Your task to perform on an android device: Search for sushi restaurants on Maps Image 0: 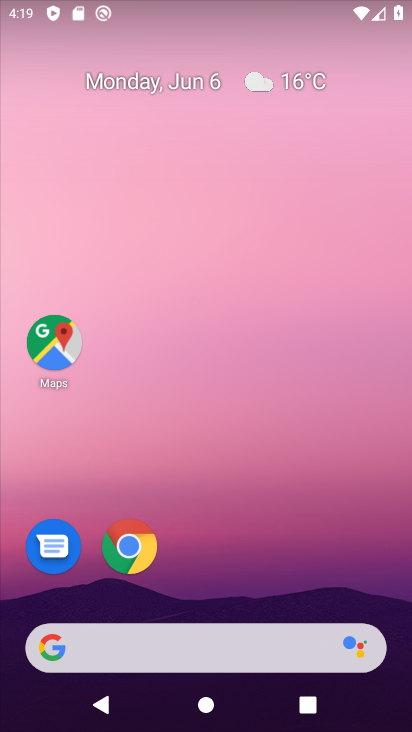
Step 0: drag from (242, 626) to (167, 63)
Your task to perform on an android device: Search for sushi restaurants on Maps Image 1: 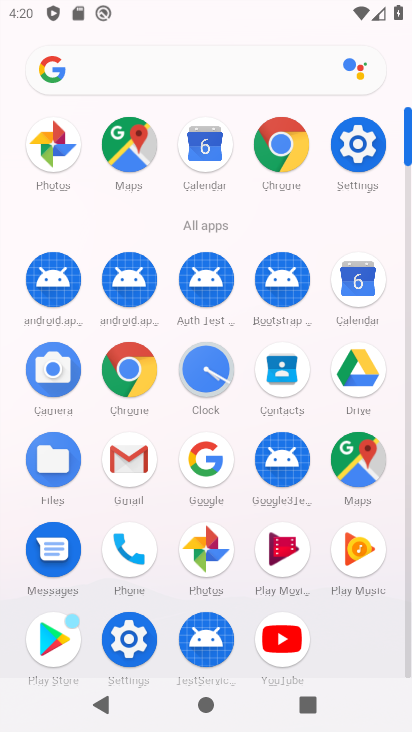
Step 1: click (353, 466)
Your task to perform on an android device: Search for sushi restaurants on Maps Image 2: 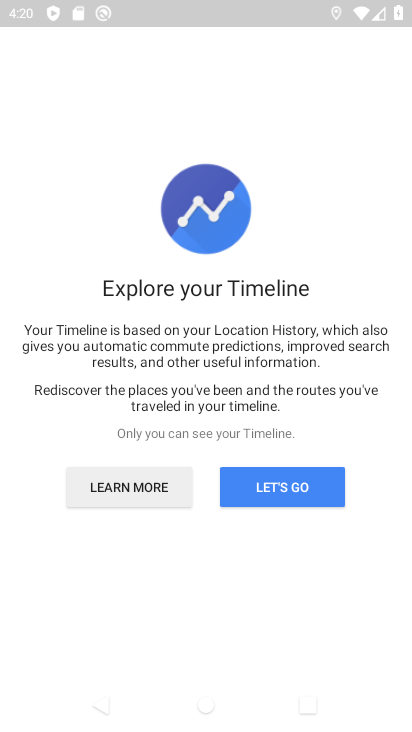
Step 2: click (305, 484)
Your task to perform on an android device: Search for sushi restaurants on Maps Image 3: 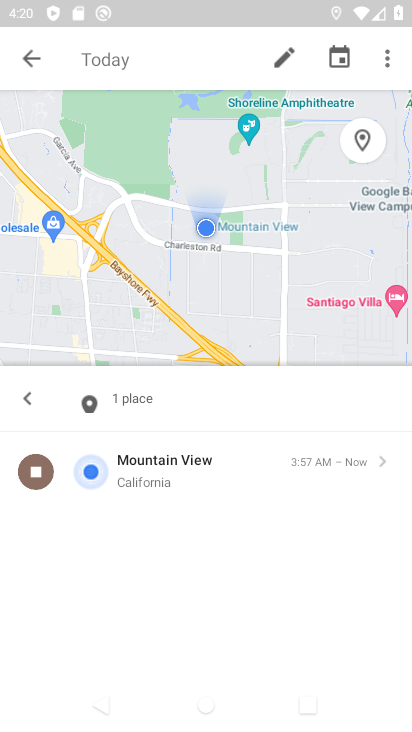
Step 3: click (32, 59)
Your task to perform on an android device: Search for sushi restaurants on Maps Image 4: 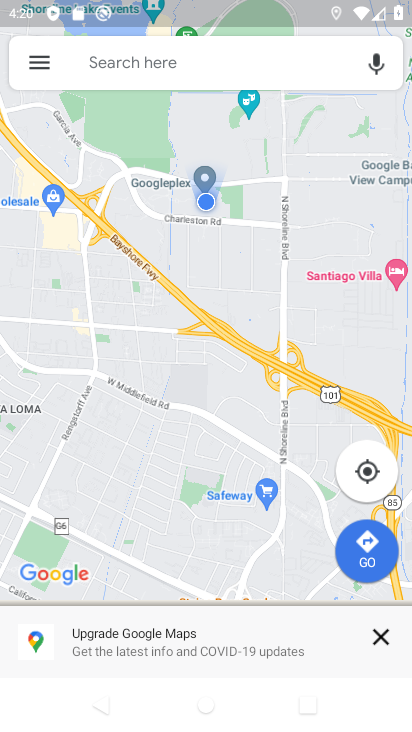
Step 4: click (89, 74)
Your task to perform on an android device: Search for sushi restaurants on Maps Image 5: 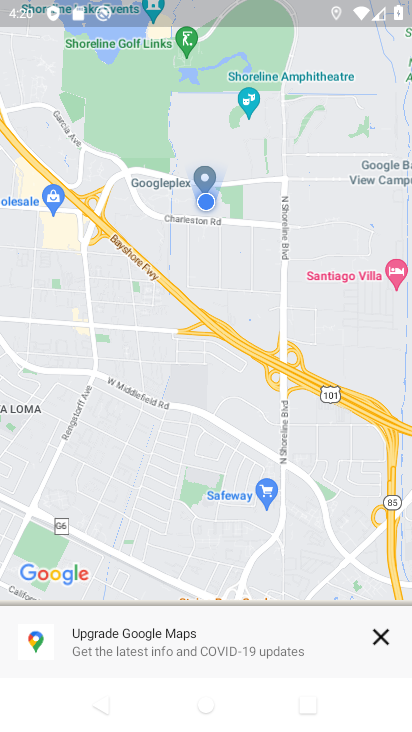
Step 5: click (376, 635)
Your task to perform on an android device: Search for sushi restaurants on Maps Image 6: 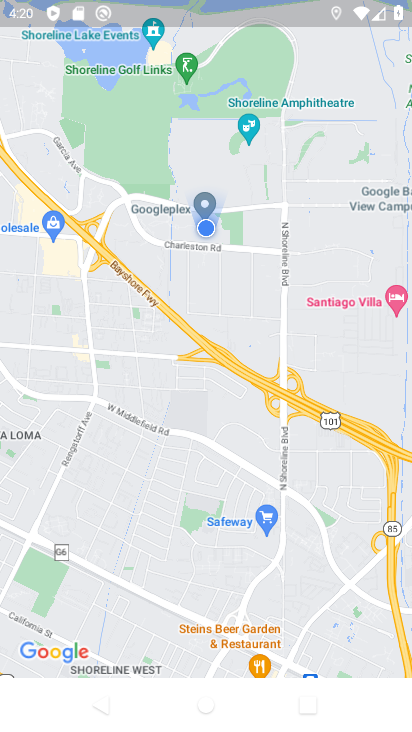
Step 6: drag from (213, 66) to (279, 365)
Your task to perform on an android device: Search for sushi restaurants on Maps Image 7: 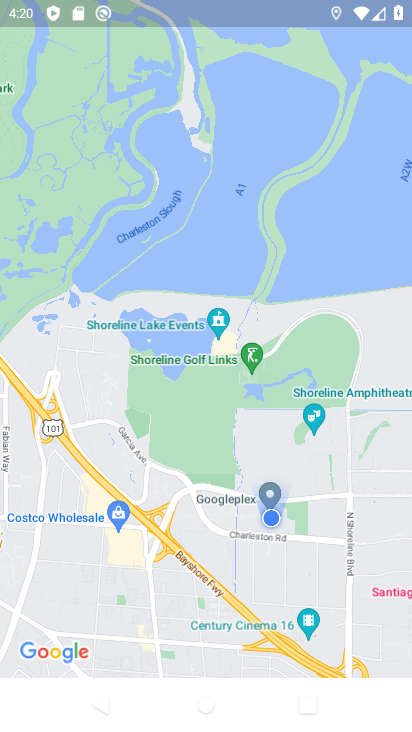
Step 7: press back button
Your task to perform on an android device: Search for sushi restaurants on Maps Image 8: 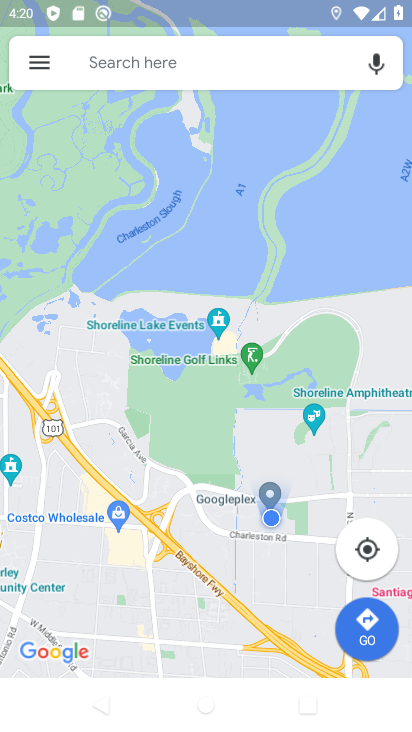
Step 8: click (226, 63)
Your task to perform on an android device: Search for sushi restaurants on Maps Image 9: 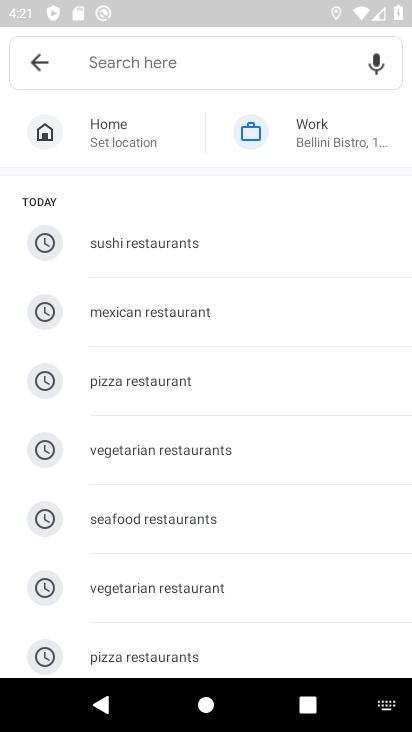
Step 9: click (139, 232)
Your task to perform on an android device: Search for sushi restaurants on Maps Image 10: 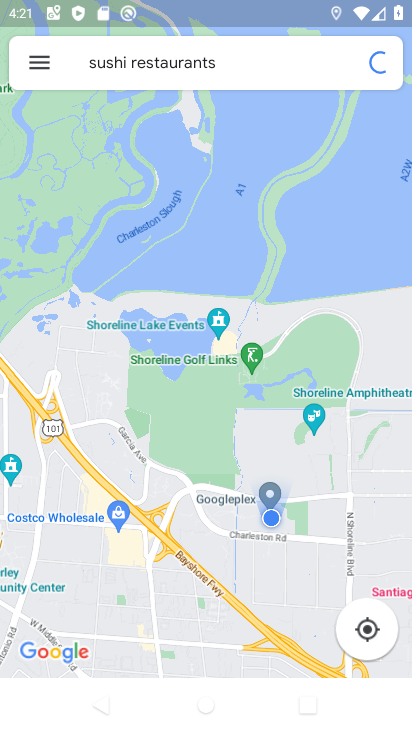
Step 10: task complete